Your task to perform on an android device: Check the best rated table lamp on Crate and Barrel Image 0: 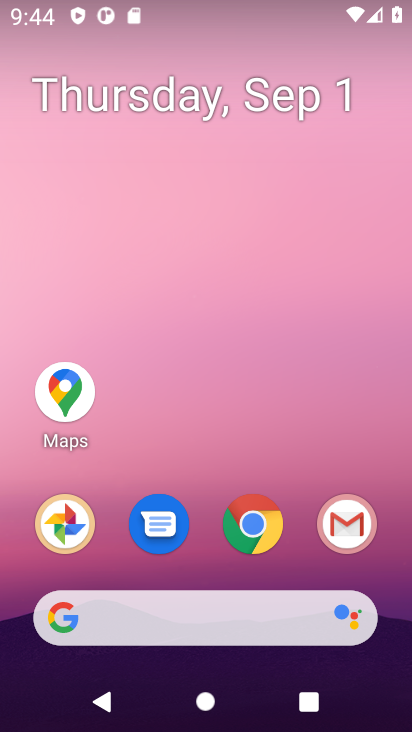
Step 0: drag from (408, 495) to (398, 107)
Your task to perform on an android device: Check the best rated table lamp on Crate and Barrel Image 1: 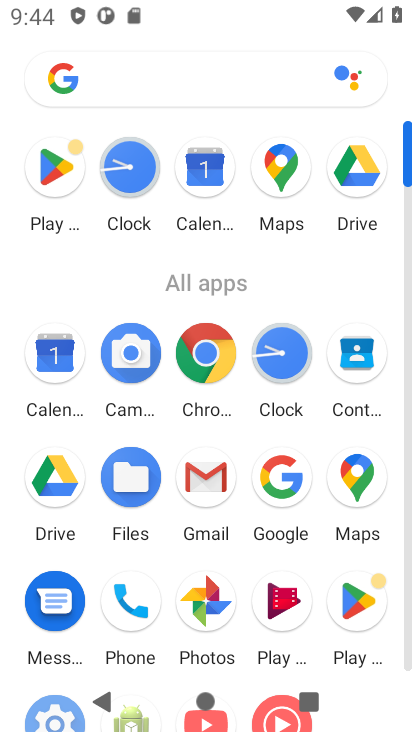
Step 1: click (202, 339)
Your task to perform on an android device: Check the best rated table lamp on Crate and Barrel Image 2: 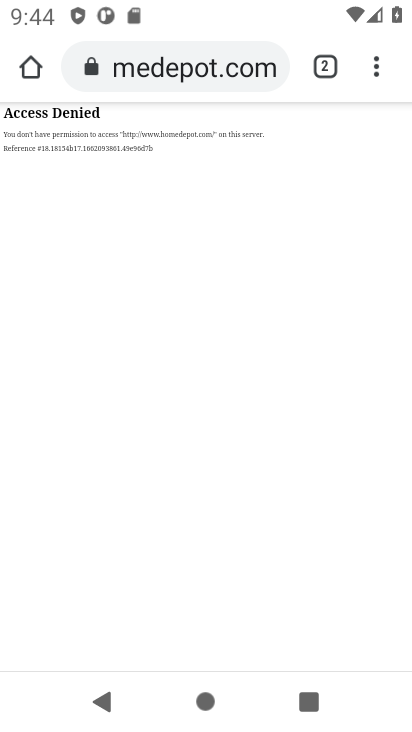
Step 2: click (222, 68)
Your task to perform on an android device: Check the best rated table lamp on Crate and Barrel Image 3: 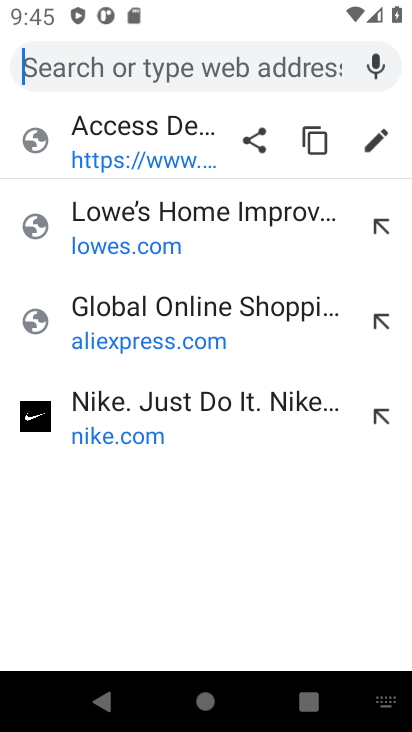
Step 3: press enter
Your task to perform on an android device: Check the best rated table lamp on Crate and Barrel Image 4: 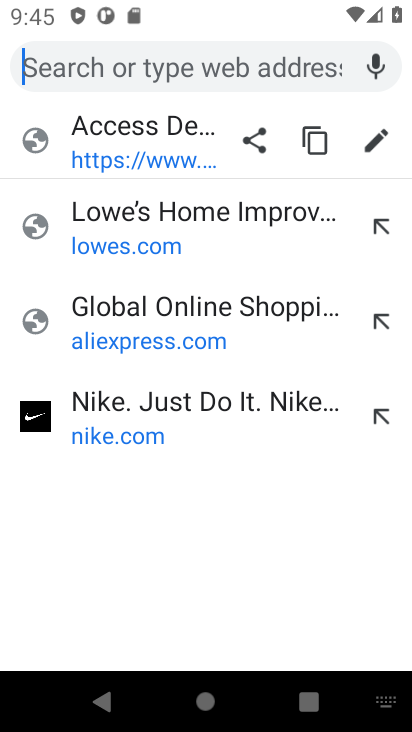
Step 4: type "crate barrel"
Your task to perform on an android device: Check the best rated table lamp on Crate and Barrel Image 5: 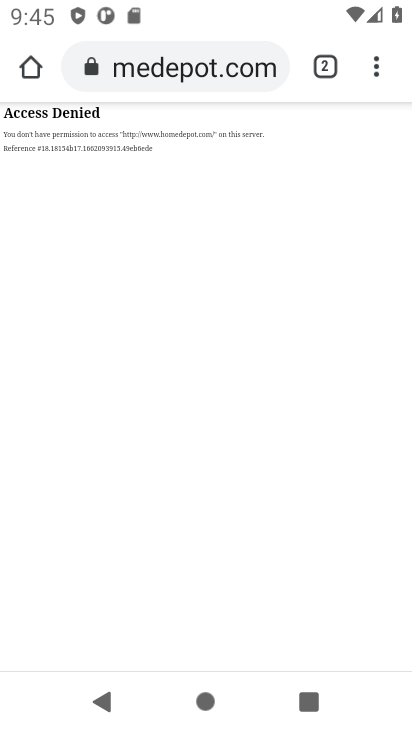
Step 5: click (204, 64)
Your task to perform on an android device: Check the best rated table lamp on Crate and Barrel Image 6: 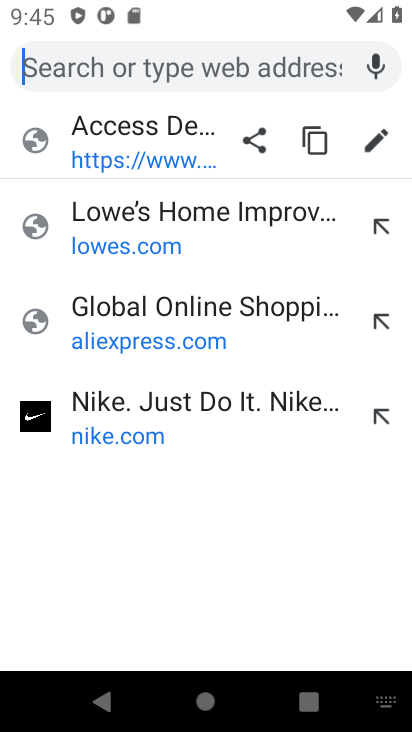
Step 6: type "best selling books"
Your task to perform on an android device: Check the best rated table lamp on Crate and Barrel Image 7: 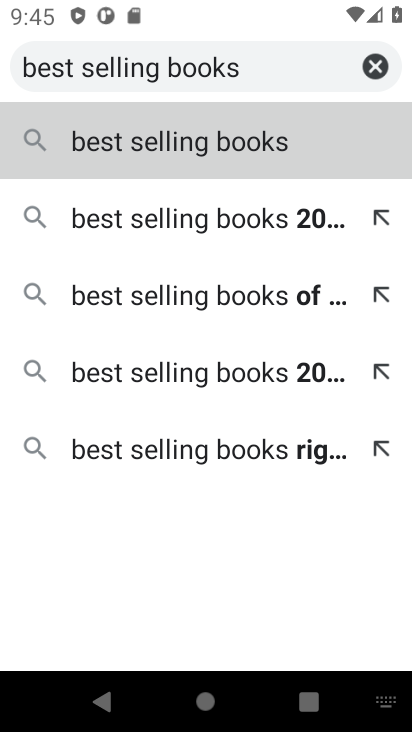
Step 7: click (377, 69)
Your task to perform on an android device: Check the best rated table lamp on Crate and Barrel Image 8: 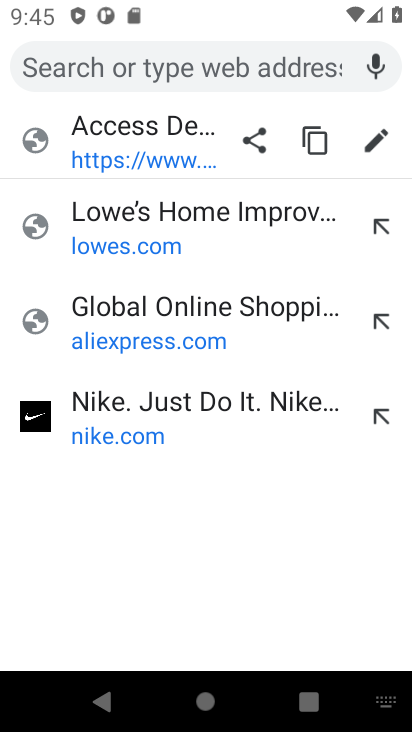
Step 8: type "crate barrel"
Your task to perform on an android device: Check the best rated table lamp on Crate and Barrel Image 9: 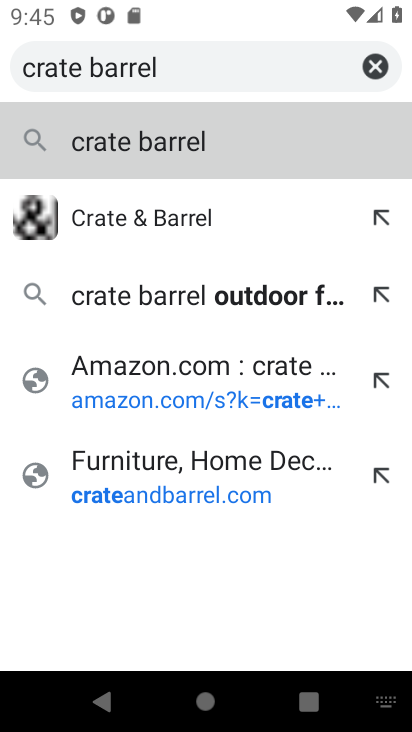
Step 9: click (192, 142)
Your task to perform on an android device: Check the best rated table lamp on Crate and Barrel Image 10: 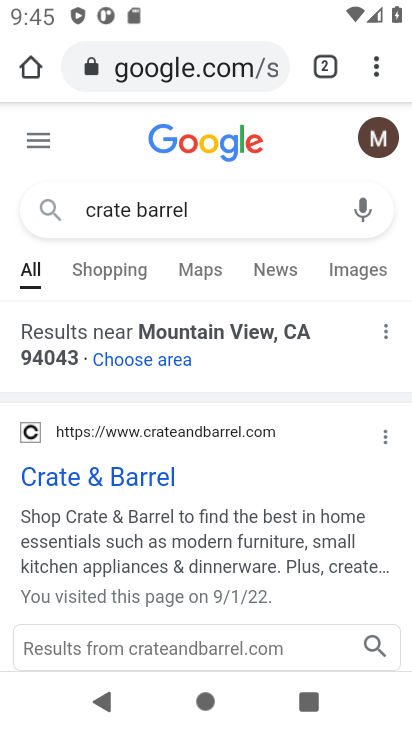
Step 10: click (127, 474)
Your task to perform on an android device: Check the best rated table lamp on Crate and Barrel Image 11: 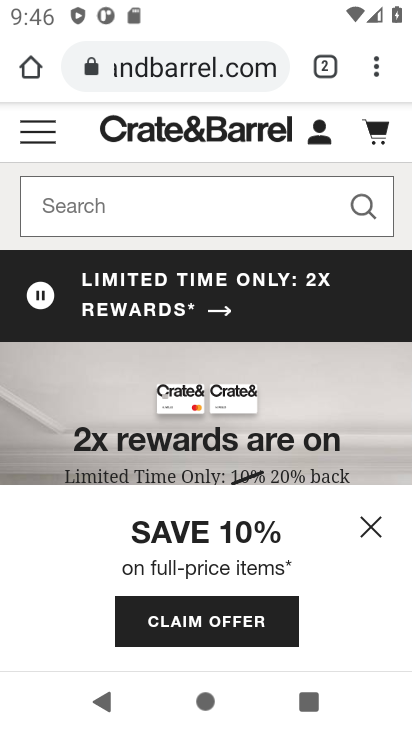
Step 11: click (367, 525)
Your task to perform on an android device: Check the best rated table lamp on Crate and Barrel Image 12: 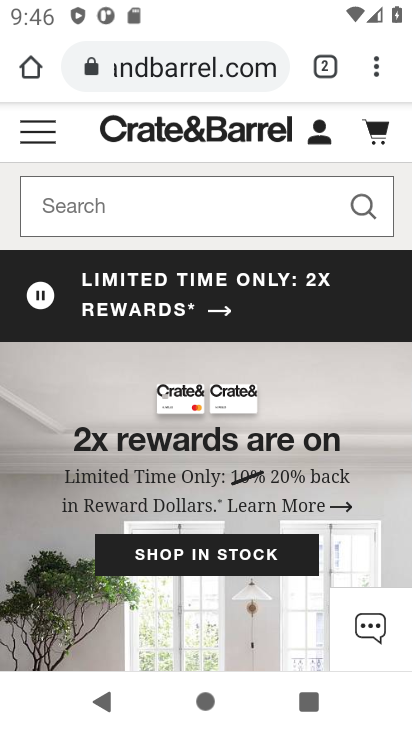
Step 12: click (178, 197)
Your task to perform on an android device: Check the best rated table lamp on Crate and Barrel Image 13: 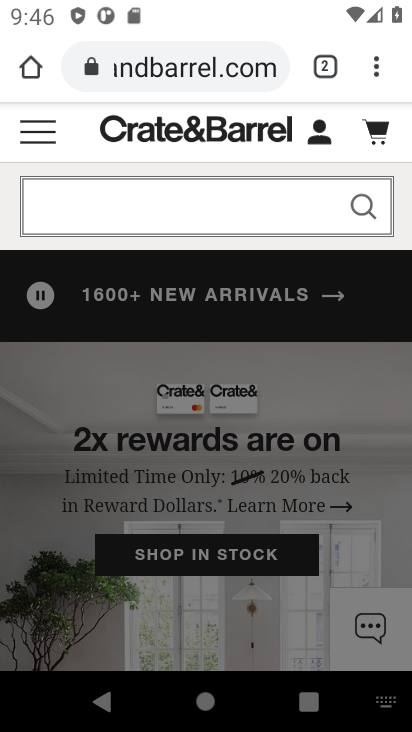
Step 13: press enter
Your task to perform on an android device: Check the best rated table lamp on Crate and Barrel Image 14: 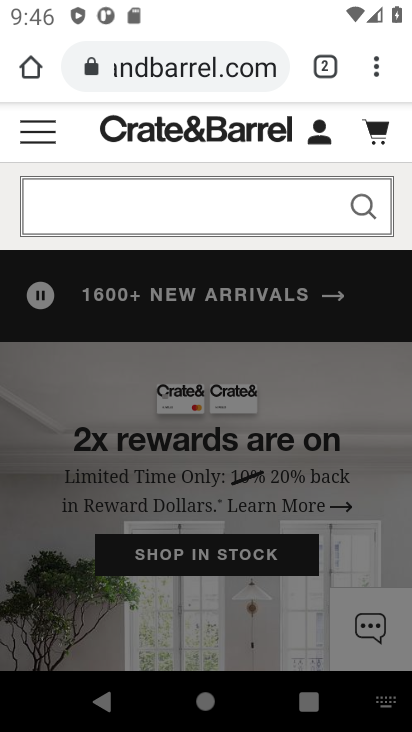
Step 14: type "best rated table lamp "
Your task to perform on an android device: Check the best rated table lamp on Crate and Barrel Image 15: 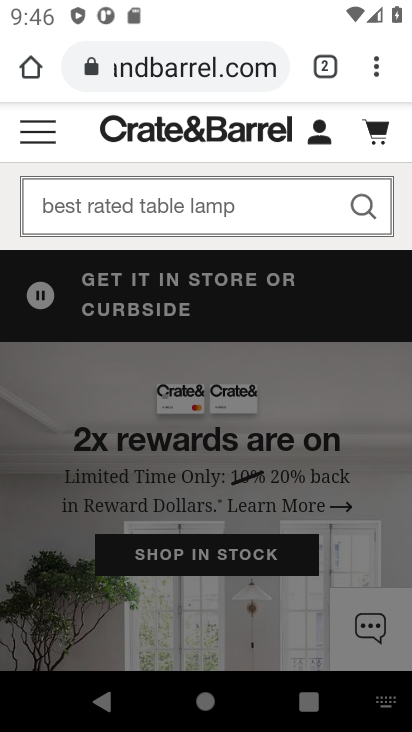
Step 15: click (367, 199)
Your task to perform on an android device: Check the best rated table lamp on Crate and Barrel Image 16: 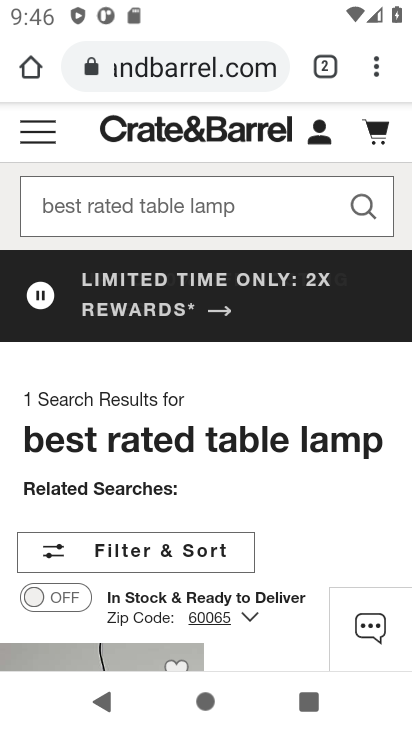
Step 16: task complete